Your task to perform on an android device: turn smart compose on in the gmail app Image 0: 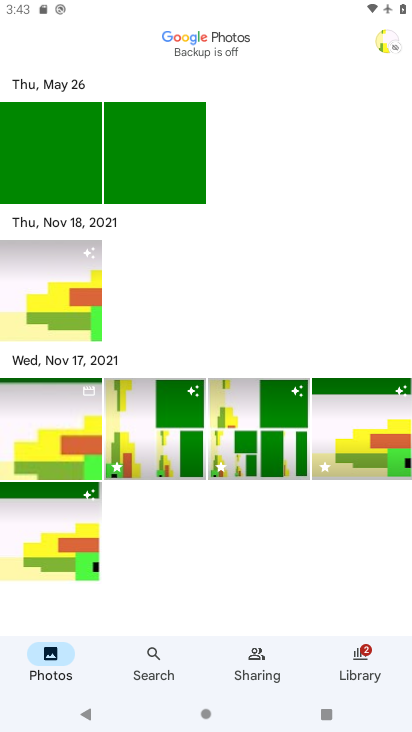
Step 0: press home button
Your task to perform on an android device: turn smart compose on in the gmail app Image 1: 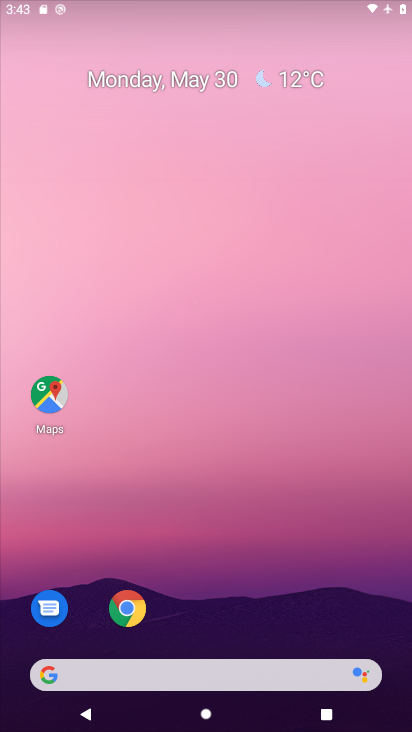
Step 1: drag from (212, 579) to (174, 102)
Your task to perform on an android device: turn smart compose on in the gmail app Image 2: 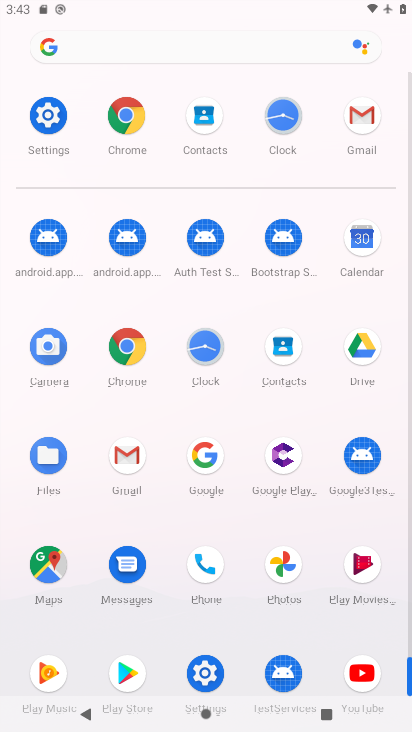
Step 2: click (44, 120)
Your task to perform on an android device: turn smart compose on in the gmail app Image 3: 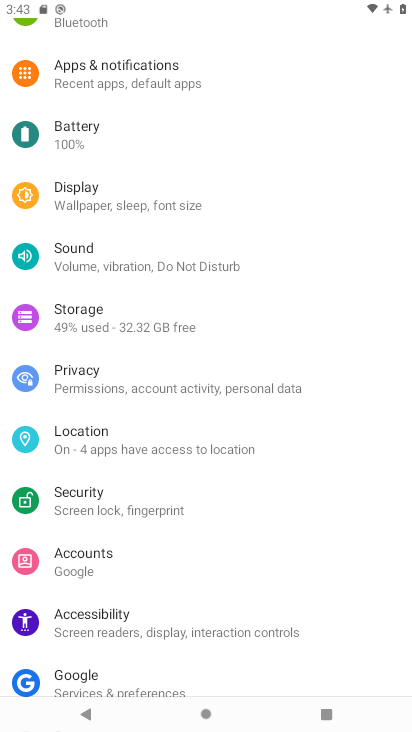
Step 3: press home button
Your task to perform on an android device: turn smart compose on in the gmail app Image 4: 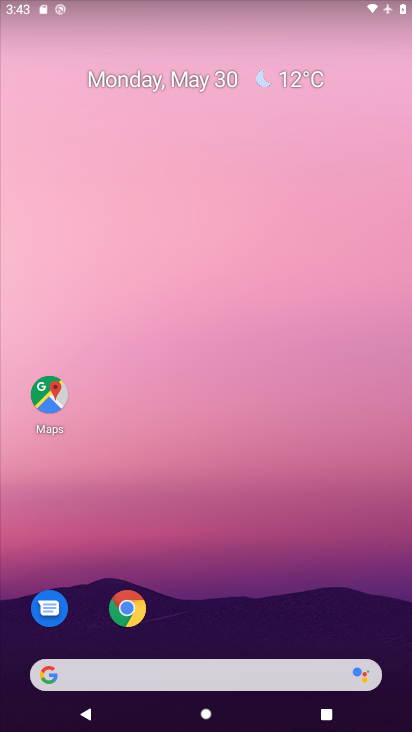
Step 4: drag from (269, 440) to (243, 25)
Your task to perform on an android device: turn smart compose on in the gmail app Image 5: 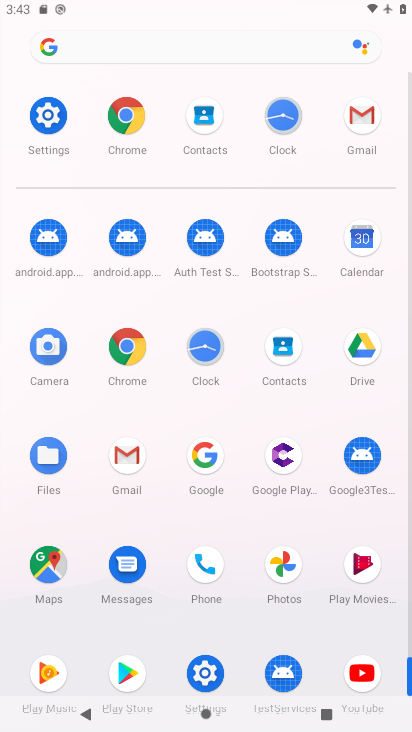
Step 5: click (128, 461)
Your task to perform on an android device: turn smart compose on in the gmail app Image 6: 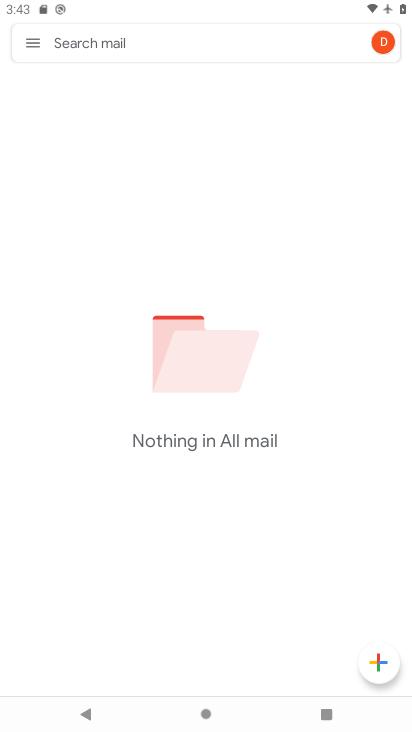
Step 6: click (24, 38)
Your task to perform on an android device: turn smart compose on in the gmail app Image 7: 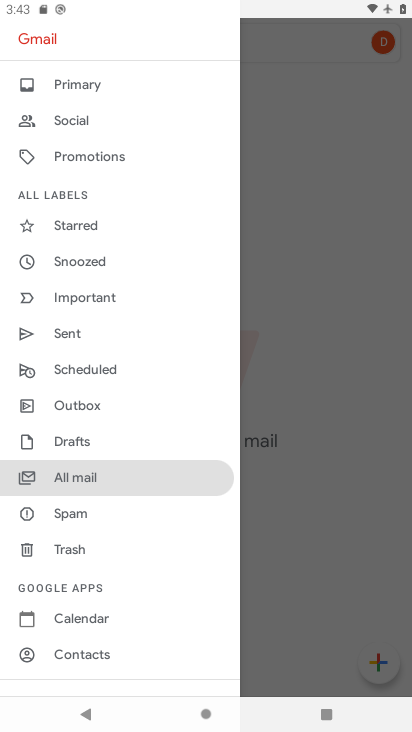
Step 7: press home button
Your task to perform on an android device: turn smart compose on in the gmail app Image 8: 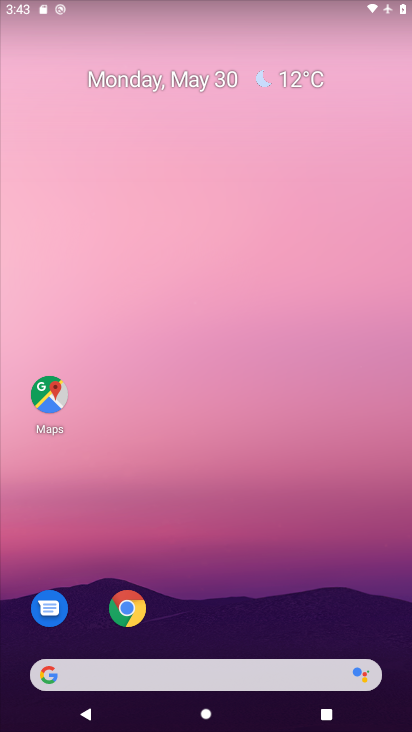
Step 8: drag from (265, 590) to (209, 36)
Your task to perform on an android device: turn smart compose on in the gmail app Image 9: 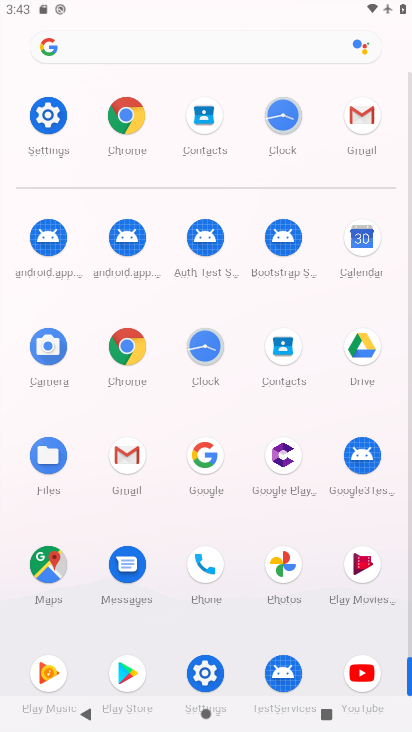
Step 9: click (122, 454)
Your task to perform on an android device: turn smart compose on in the gmail app Image 10: 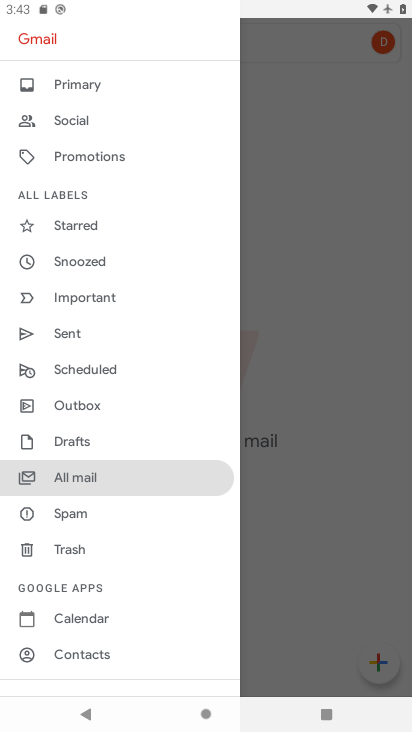
Step 10: drag from (114, 574) to (92, 233)
Your task to perform on an android device: turn smart compose on in the gmail app Image 11: 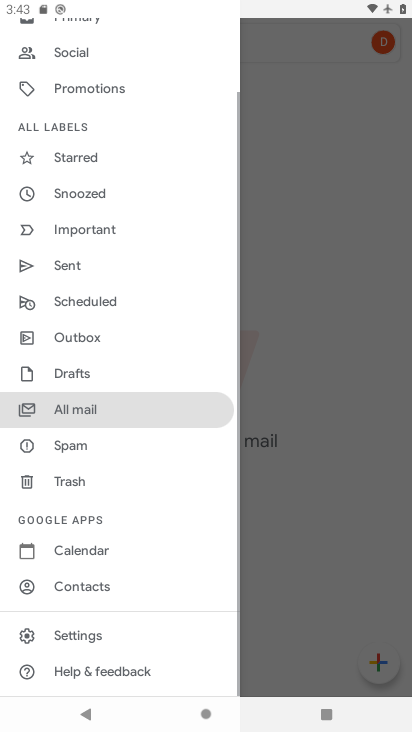
Step 11: click (103, 637)
Your task to perform on an android device: turn smart compose on in the gmail app Image 12: 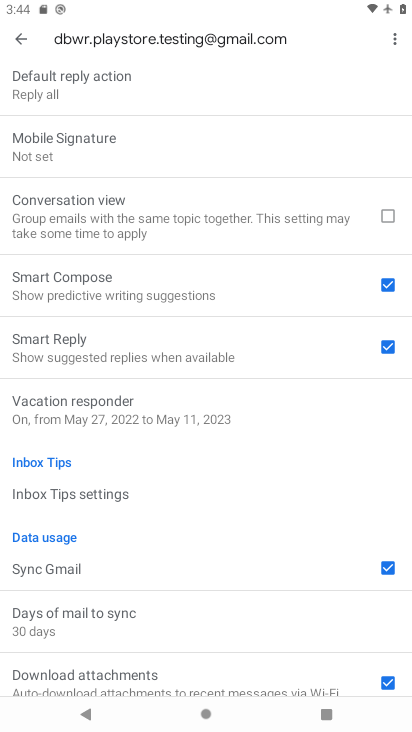
Step 12: task complete